Your task to perform on an android device: toggle sleep mode Image 0: 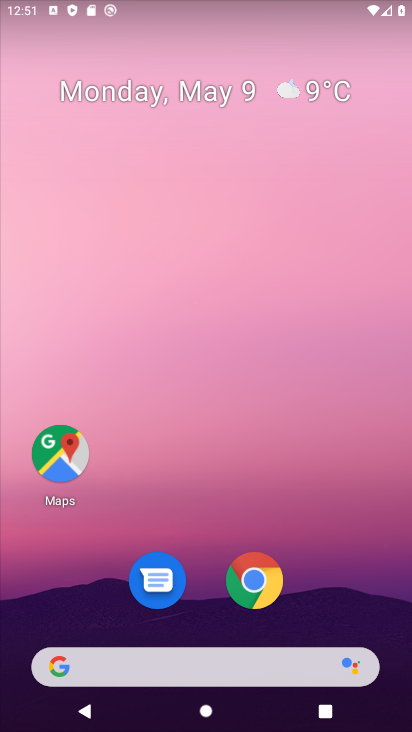
Step 0: drag from (308, 531) to (261, 39)
Your task to perform on an android device: toggle sleep mode Image 1: 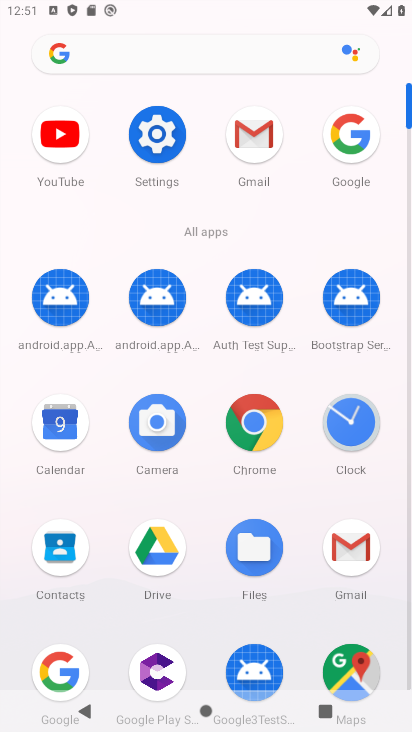
Step 1: click (160, 134)
Your task to perform on an android device: toggle sleep mode Image 2: 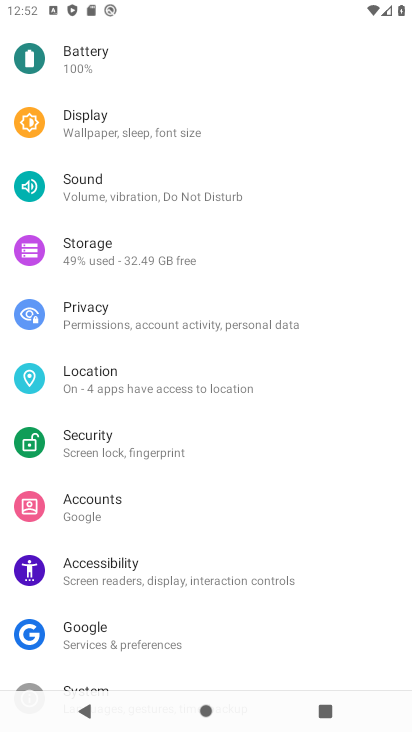
Step 2: click (135, 122)
Your task to perform on an android device: toggle sleep mode Image 3: 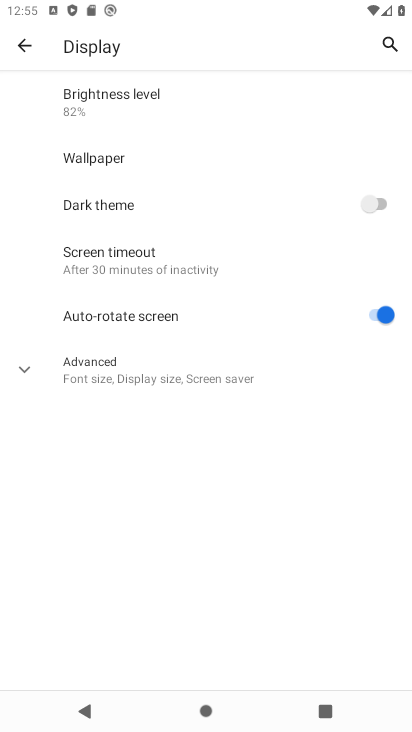
Step 3: task complete